Your task to perform on an android device: Open settings on Google Maps Image 0: 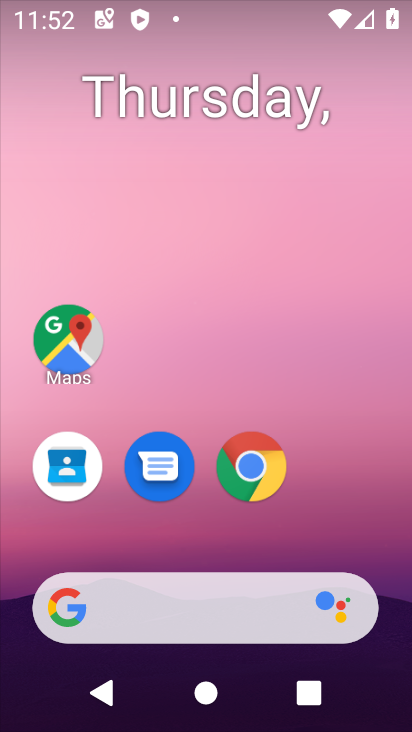
Step 0: click (67, 348)
Your task to perform on an android device: Open settings on Google Maps Image 1: 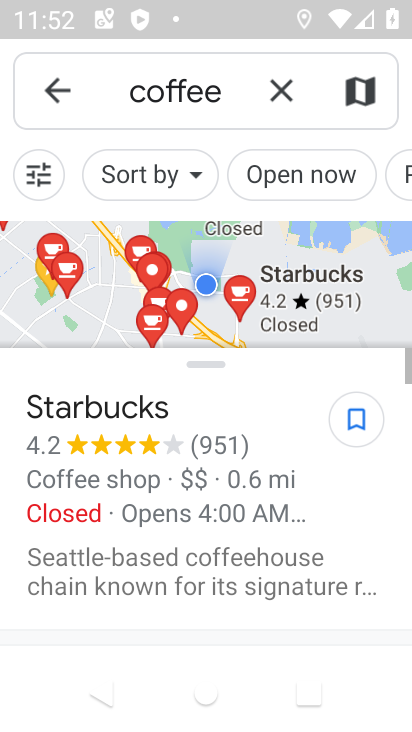
Step 1: click (62, 101)
Your task to perform on an android device: Open settings on Google Maps Image 2: 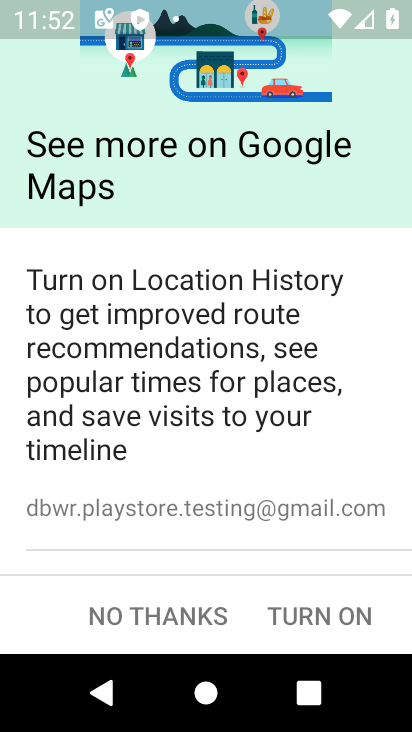
Step 2: click (171, 624)
Your task to perform on an android device: Open settings on Google Maps Image 3: 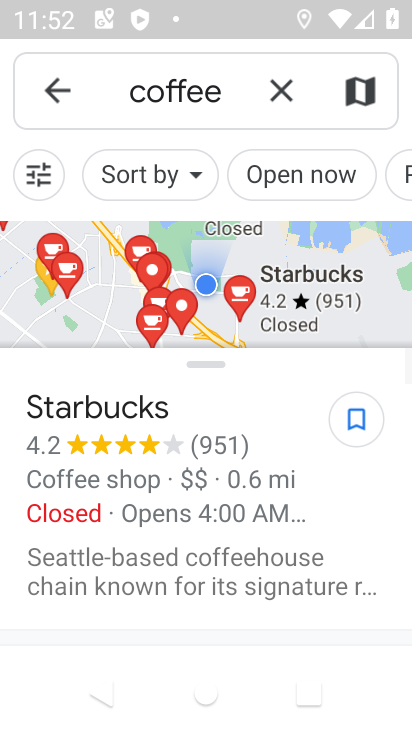
Step 3: click (51, 88)
Your task to perform on an android device: Open settings on Google Maps Image 4: 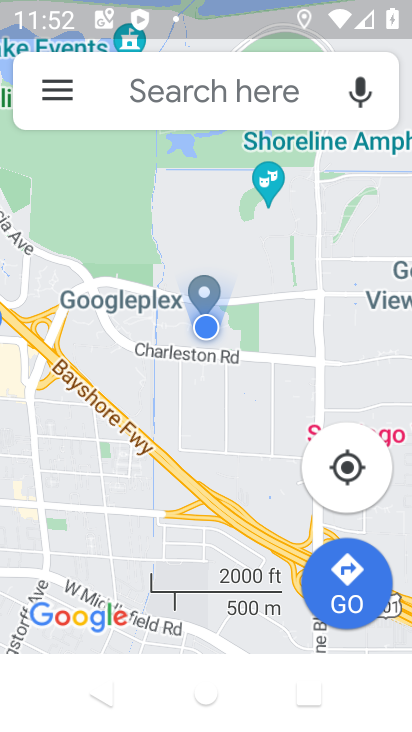
Step 4: click (60, 98)
Your task to perform on an android device: Open settings on Google Maps Image 5: 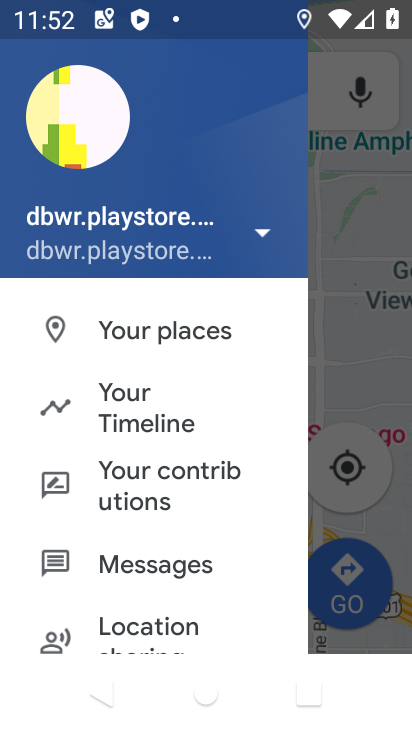
Step 5: drag from (157, 611) to (220, 223)
Your task to perform on an android device: Open settings on Google Maps Image 6: 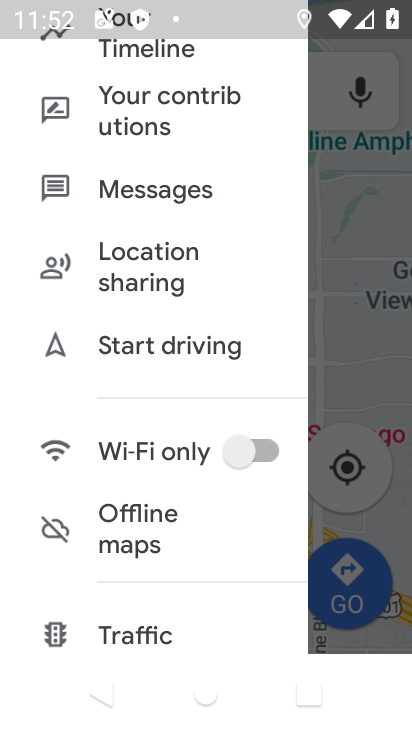
Step 6: drag from (153, 595) to (171, 287)
Your task to perform on an android device: Open settings on Google Maps Image 7: 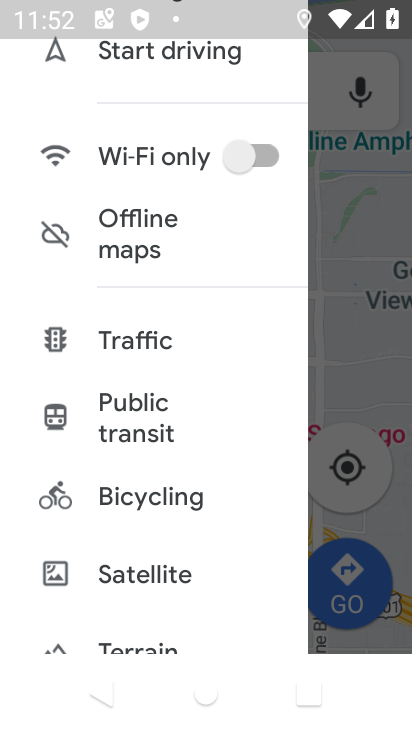
Step 7: drag from (142, 542) to (168, 259)
Your task to perform on an android device: Open settings on Google Maps Image 8: 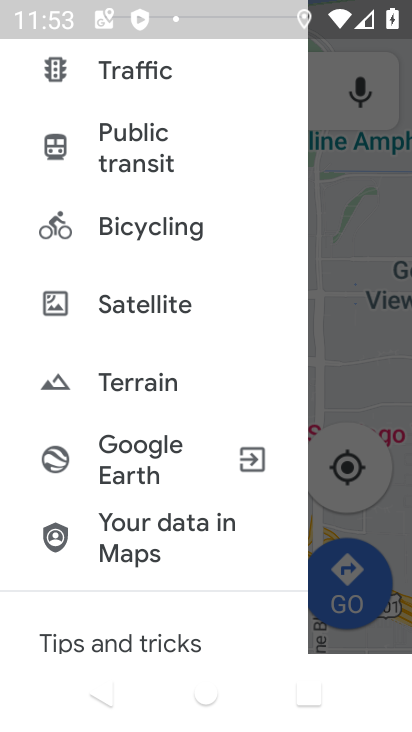
Step 8: drag from (125, 578) to (151, 362)
Your task to perform on an android device: Open settings on Google Maps Image 9: 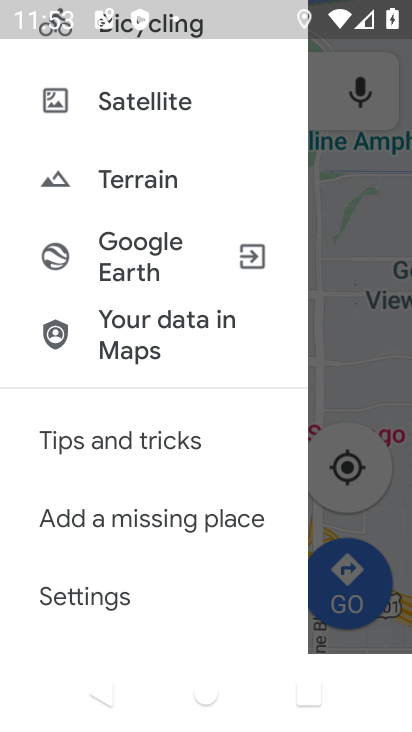
Step 9: click (106, 611)
Your task to perform on an android device: Open settings on Google Maps Image 10: 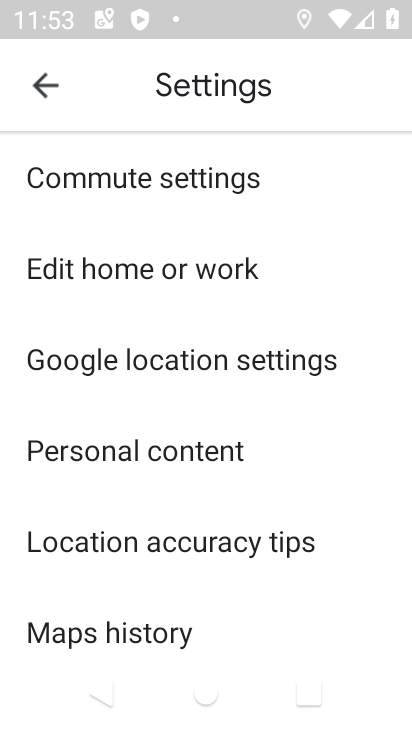
Step 10: task complete